Your task to perform on an android device: change the clock display to analog Image 0: 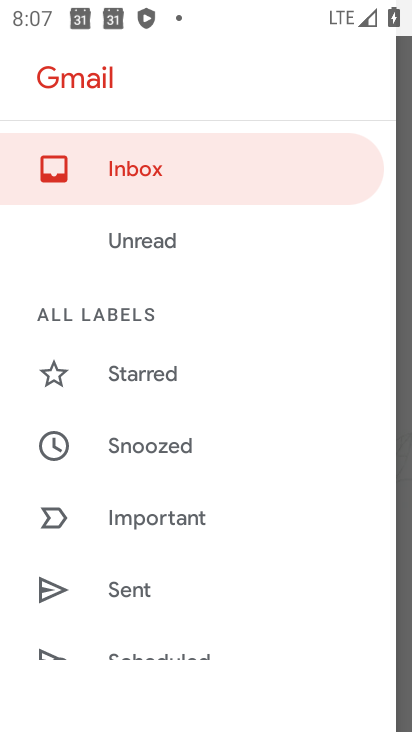
Step 0: press home button
Your task to perform on an android device: change the clock display to analog Image 1: 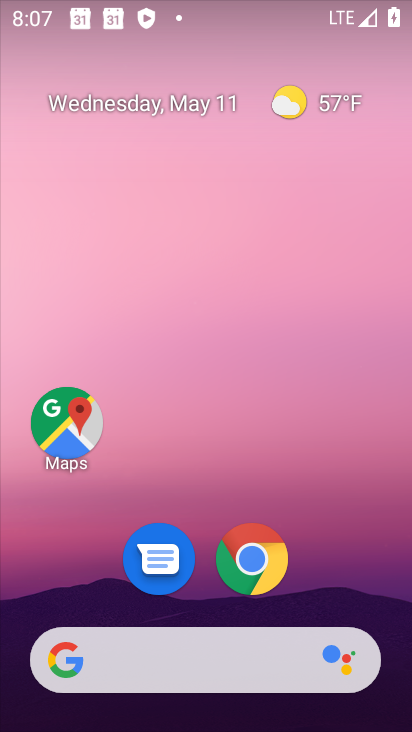
Step 1: drag from (347, 594) to (317, 76)
Your task to perform on an android device: change the clock display to analog Image 2: 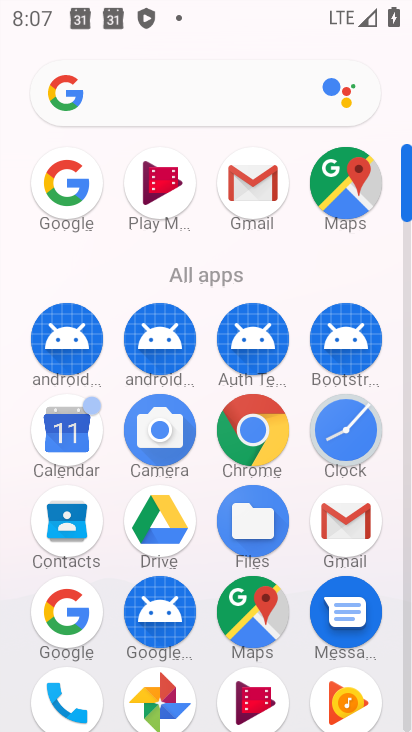
Step 2: click (356, 449)
Your task to perform on an android device: change the clock display to analog Image 3: 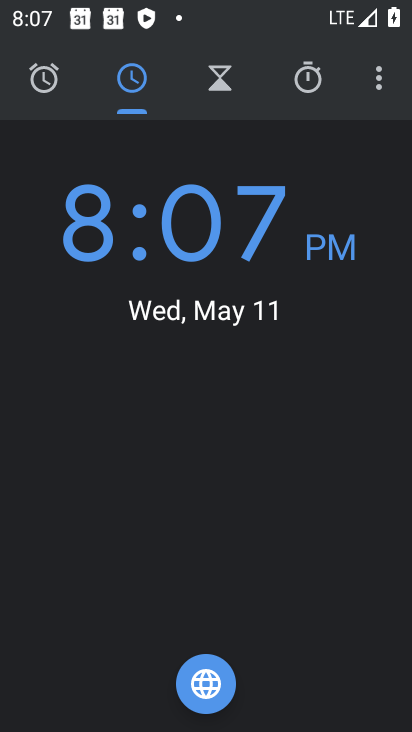
Step 3: click (374, 86)
Your task to perform on an android device: change the clock display to analog Image 4: 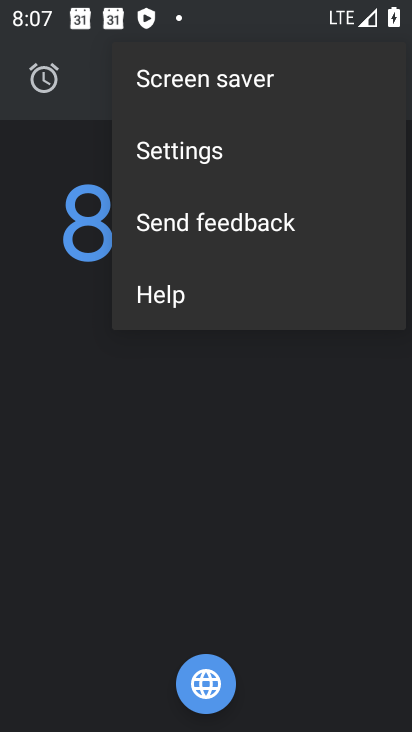
Step 4: click (324, 158)
Your task to perform on an android device: change the clock display to analog Image 5: 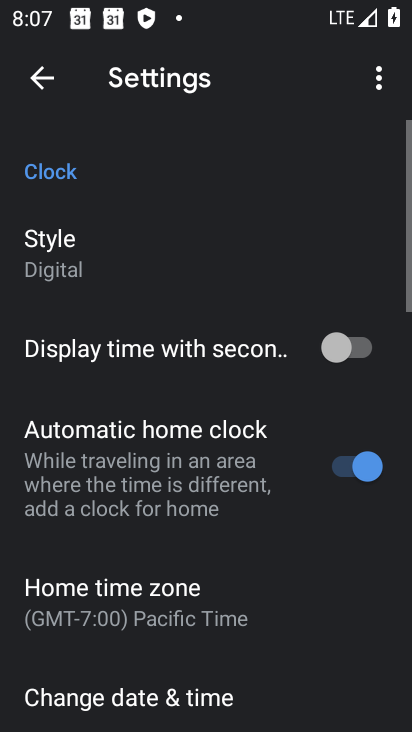
Step 5: click (142, 235)
Your task to perform on an android device: change the clock display to analog Image 6: 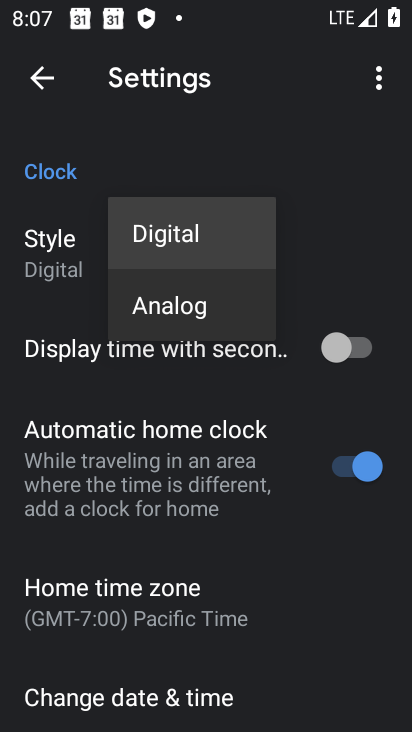
Step 6: click (153, 305)
Your task to perform on an android device: change the clock display to analog Image 7: 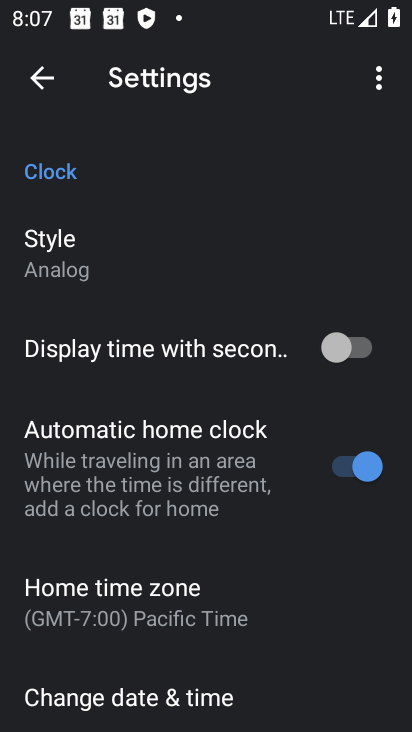
Step 7: task complete